Your task to perform on an android device: turn vacation reply on in the gmail app Image 0: 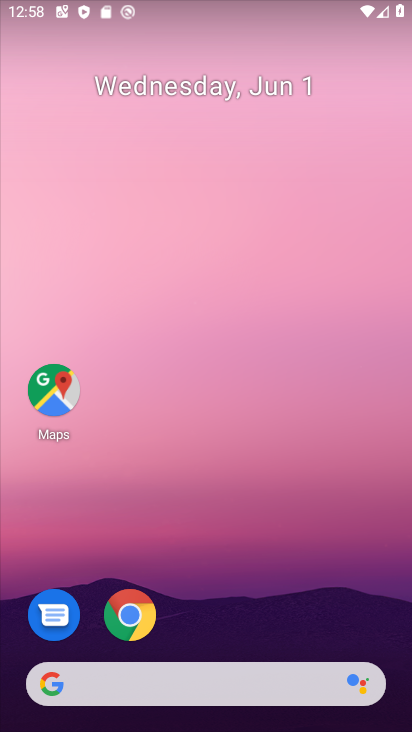
Step 0: task complete